Your task to perform on an android device: check storage Image 0: 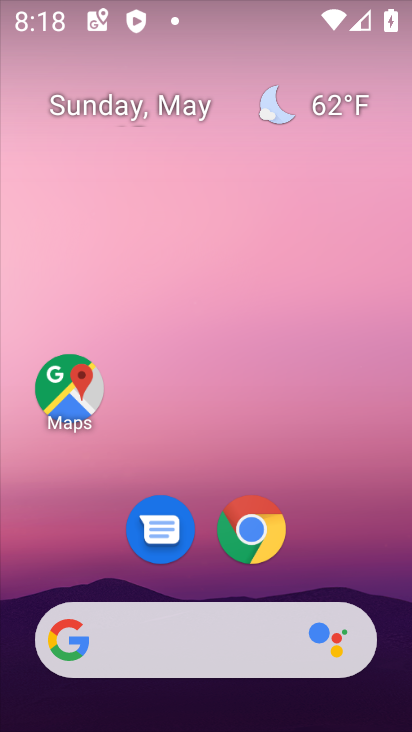
Step 0: drag from (366, 536) to (354, 194)
Your task to perform on an android device: check storage Image 1: 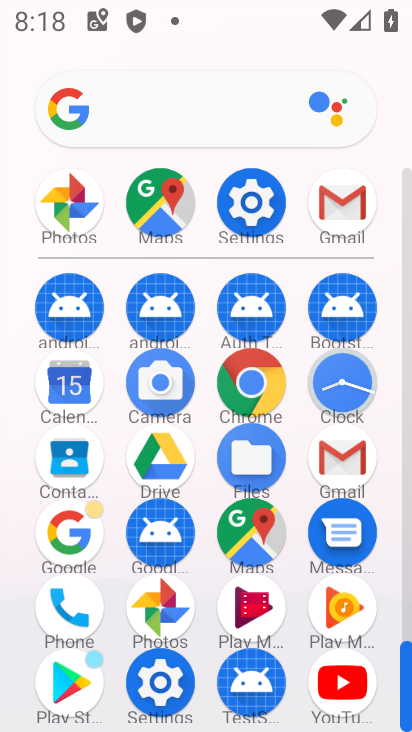
Step 1: click (147, 699)
Your task to perform on an android device: check storage Image 2: 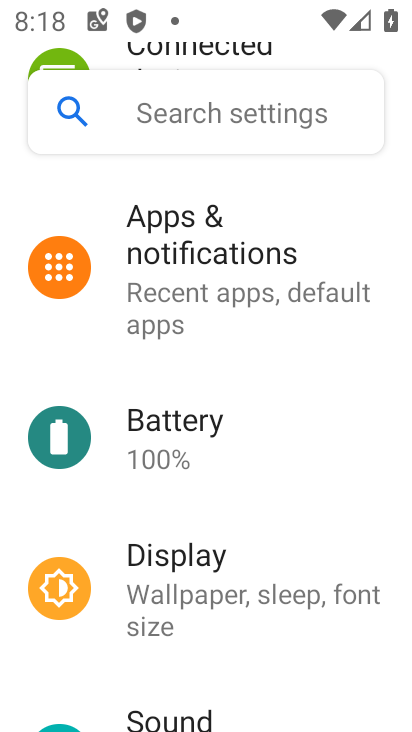
Step 2: drag from (322, 665) to (348, 336)
Your task to perform on an android device: check storage Image 3: 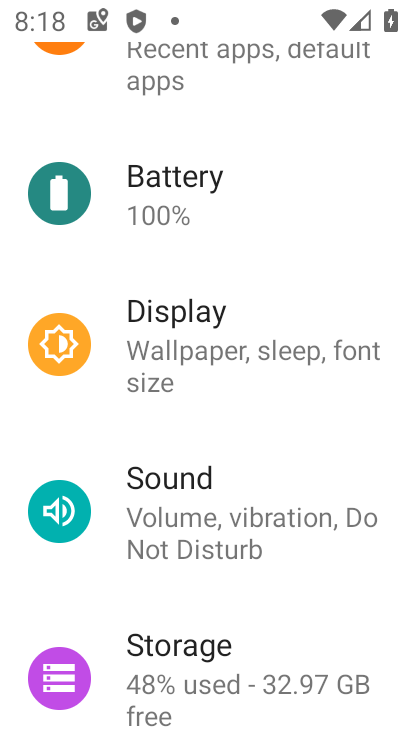
Step 3: drag from (342, 591) to (310, 210)
Your task to perform on an android device: check storage Image 4: 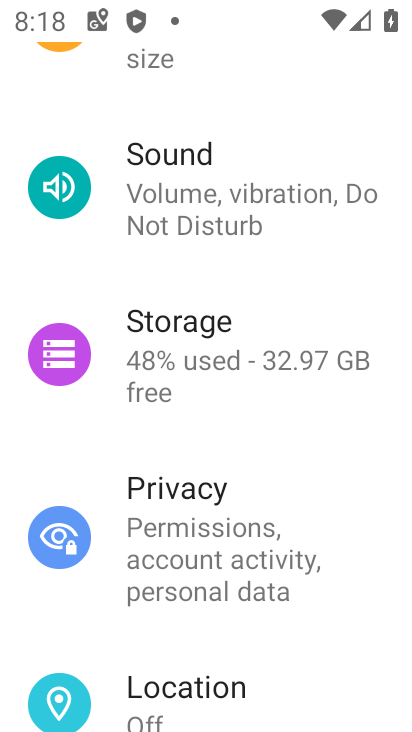
Step 4: drag from (333, 617) to (335, 509)
Your task to perform on an android device: check storage Image 5: 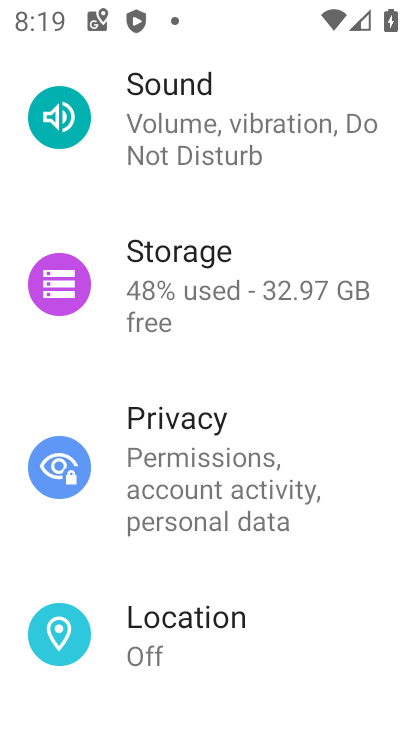
Step 5: click (263, 259)
Your task to perform on an android device: check storage Image 6: 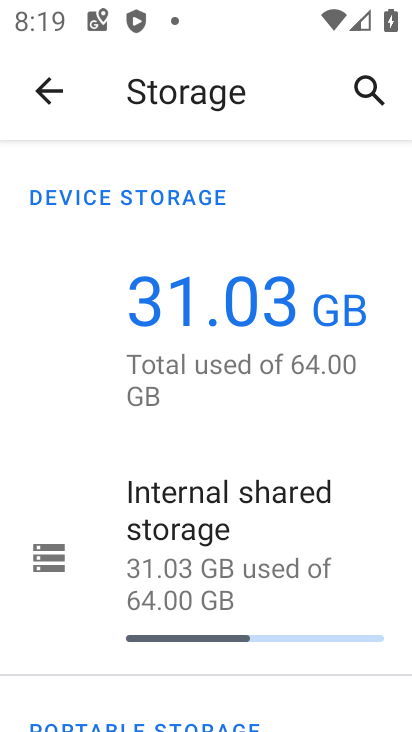
Step 6: click (36, 569)
Your task to perform on an android device: check storage Image 7: 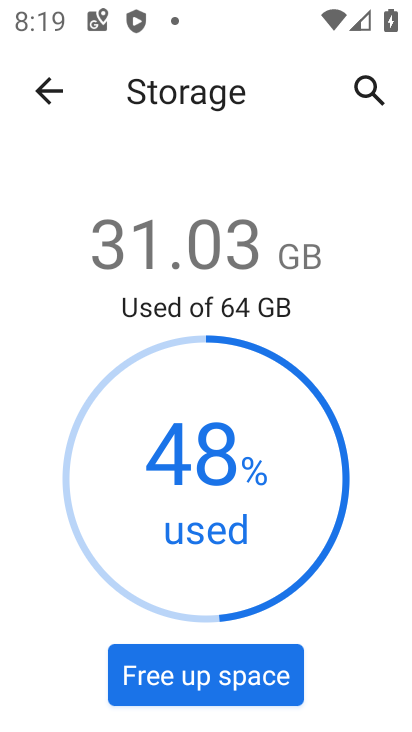
Step 7: task complete